Your task to perform on an android device: Show me popular games on the Play Store Image 0: 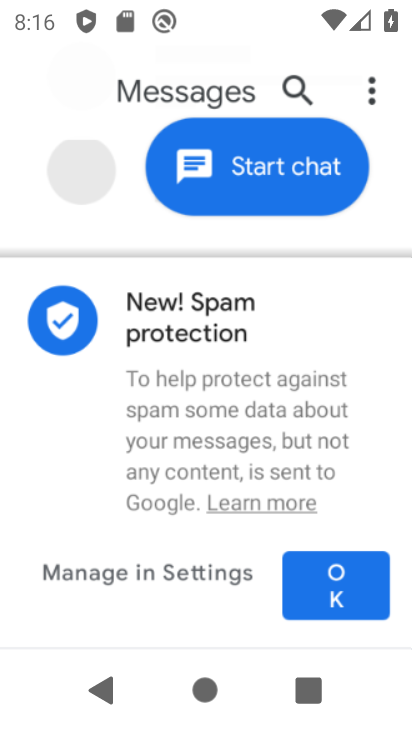
Step 0: press home button
Your task to perform on an android device: Show me popular games on the Play Store Image 1: 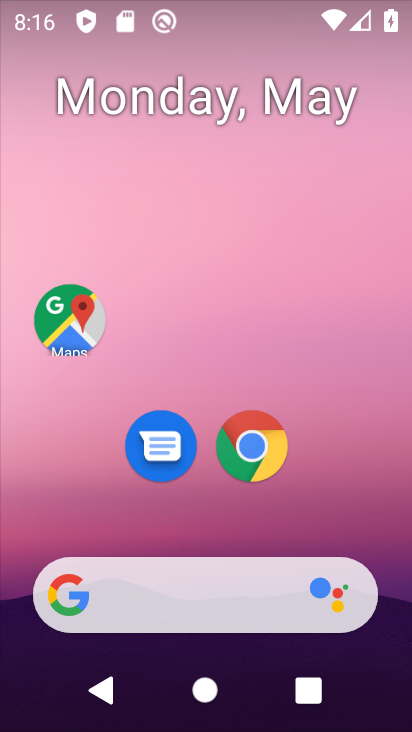
Step 1: drag from (209, 534) to (233, 79)
Your task to perform on an android device: Show me popular games on the Play Store Image 2: 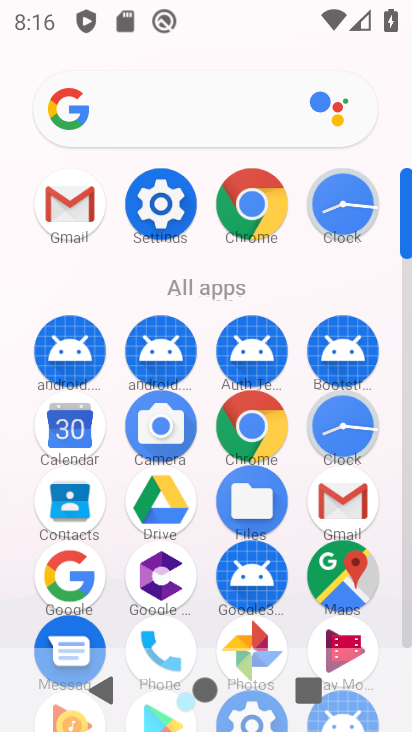
Step 2: drag from (205, 602) to (226, 184)
Your task to perform on an android device: Show me popular games on the Play Store Image 3: 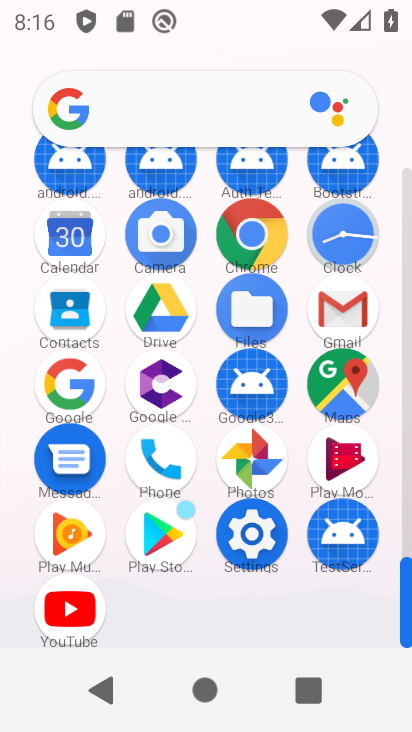
Step 3: click (155, 527)
Your task to perform on an android device: Show me popular games on the Play Store Image 4: 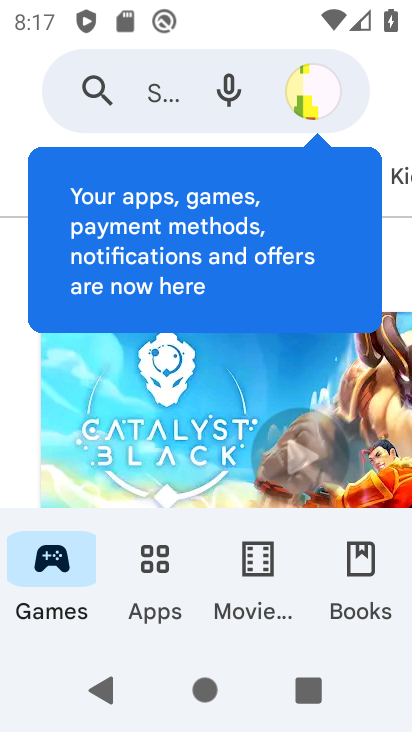
Step 4: drag from (214, 494) to (245, 112)
Your task to perform on an android device: Show me popular games on the Play Store Image 5: 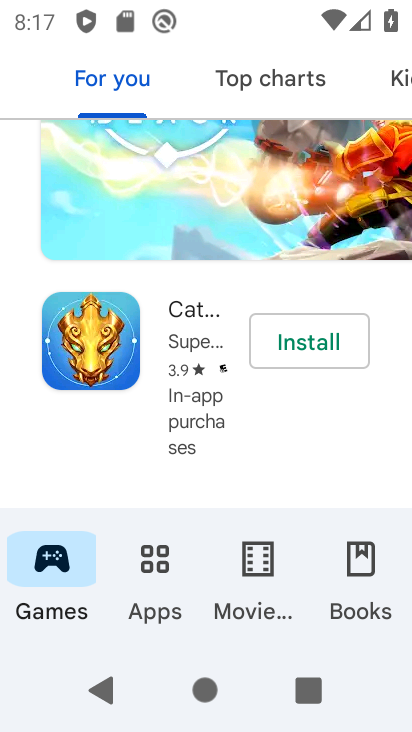
Step 5: drag from (244, 458) to (274, 122)
Your task to perform on an android device: Show me popular games on the Play Store Image 6: 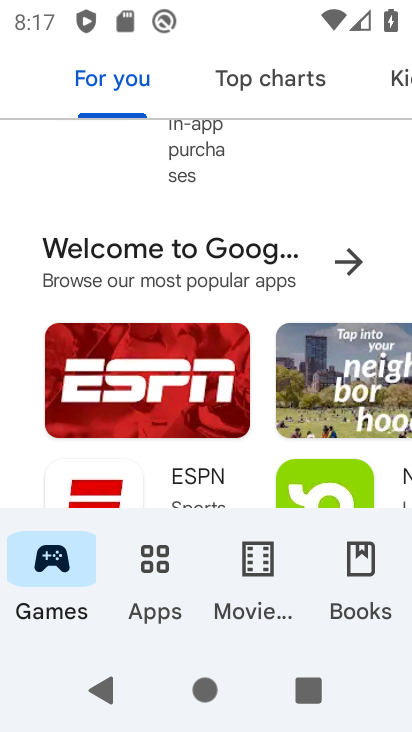
Step 6: drag from (256, 478) to (293, 63)
Your task to perform on an android device: Show me popular games on the Play Store Image 7: 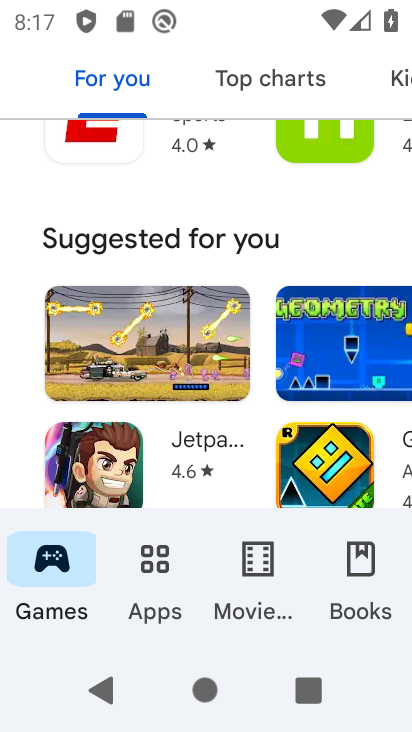
Step 7: drag from (249, 419) to (276, 27)
Your task to perform on an android device: Show me popular games on the Play Store Image 8: 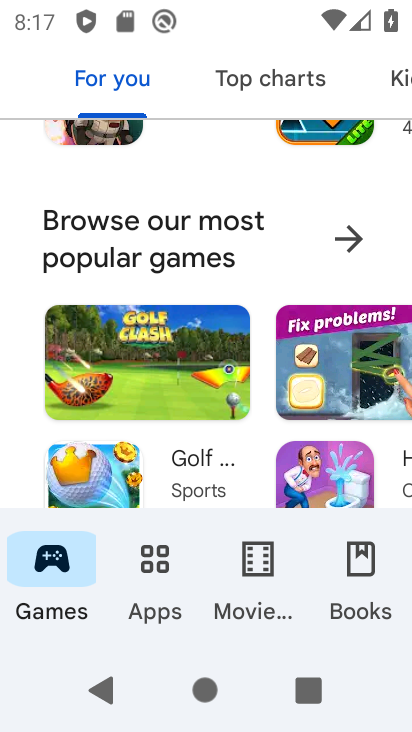
Step 8: click (350, 228)
Your task to perform on an android device: Show me popular games on the Play Store Image 9: 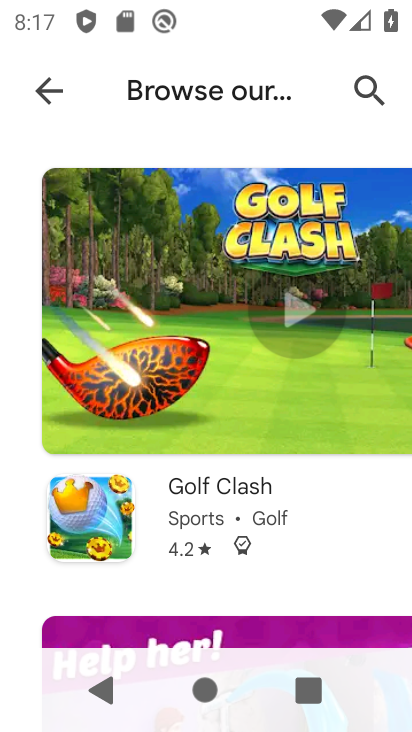
Step 9: task complete